Your task to perform on an android device: toggle pop-ups in chrome Image 0: 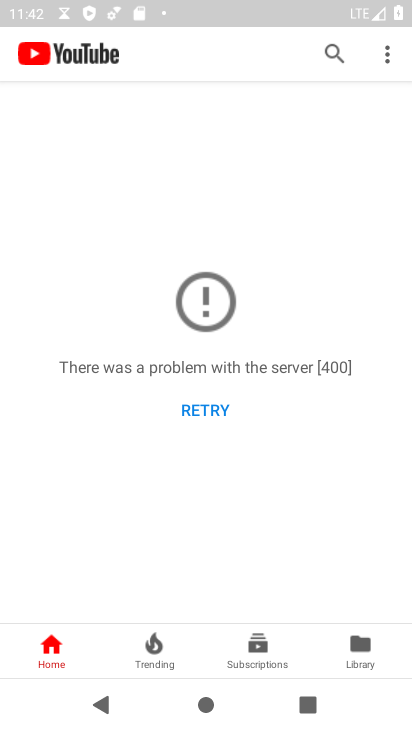
Step 0: press home button
Your task to perform on an android device: toggle pop-ups in chrome Image 1: 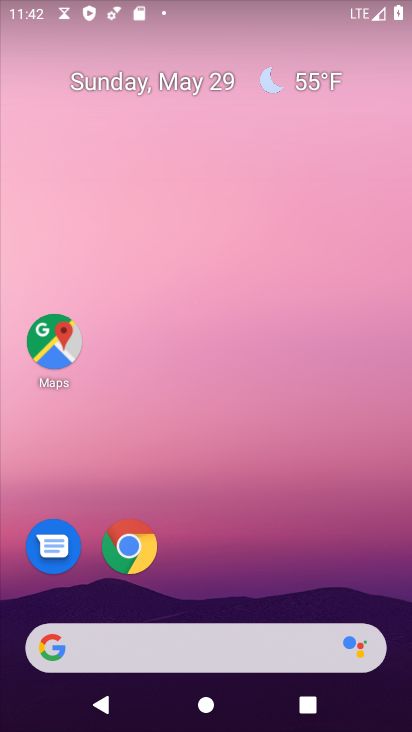
Step 1: drag from (184, 653) to (294, 165)
Your task to perform on an android device: toggle pop-ups in chrome Image 2: 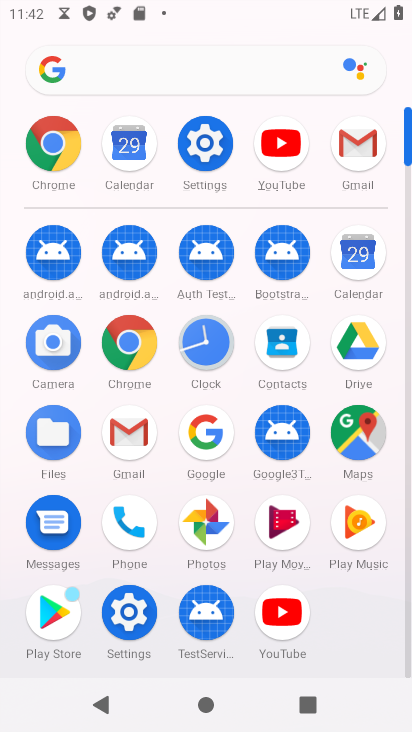
Step 2: click (50, 151)
Your task to perform on an android device: toggle pop-ups in chrome Image 3: 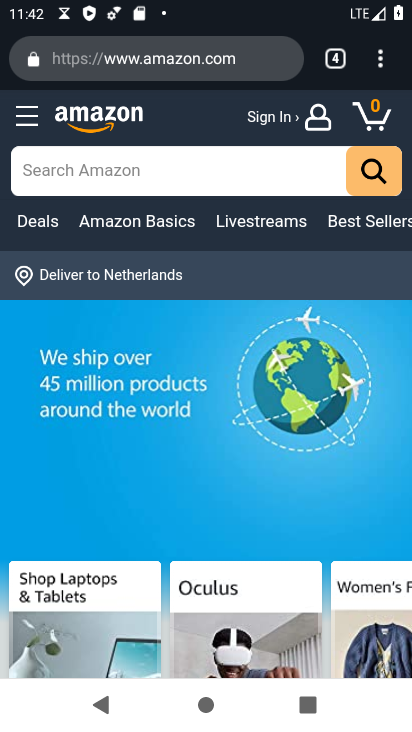
Step 3: drag from (379, 69) to (211, 573)
Your task to perform on an android device: toggle pop-ups in chrome Image 4: 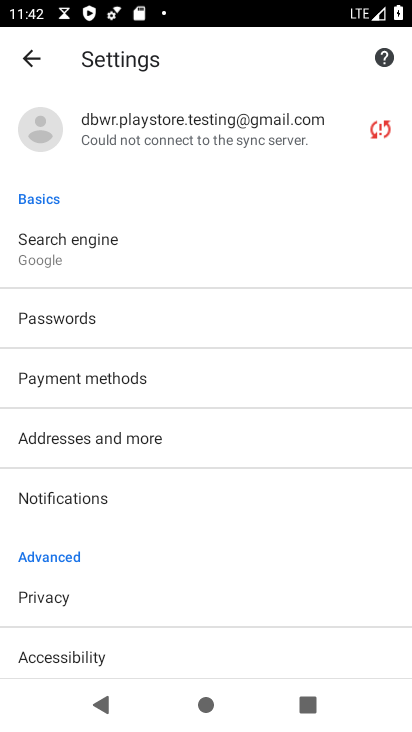
Step 4: drag from (215, 478) to (297, 255)
Your task to perform on an android device: toggle pop-ups in chrome Image 5: 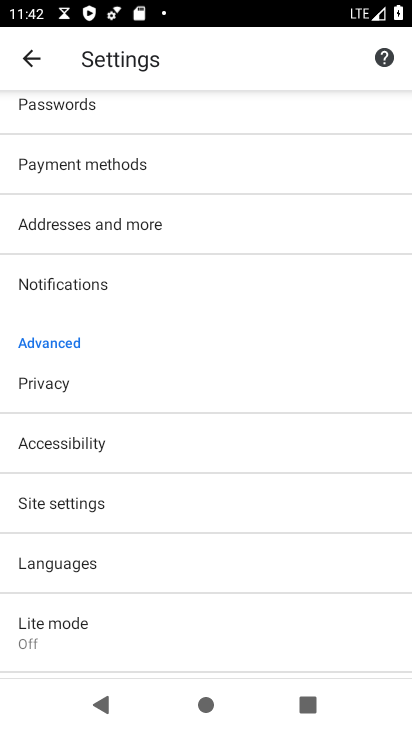
Step 5: click (77, 504)
Your task to perform on an android device: toggle pop-ups in chrome Image 6: 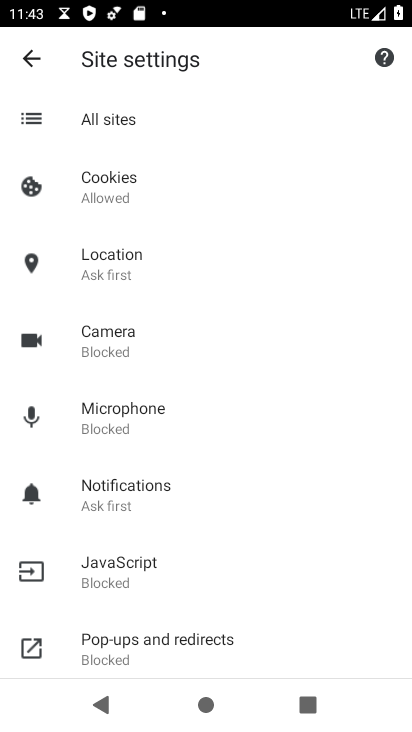
Step 6: drag from (168, 603) to (254, 344)
Your task to perform on an android device: toggle pop-ups in chrome Image 7: 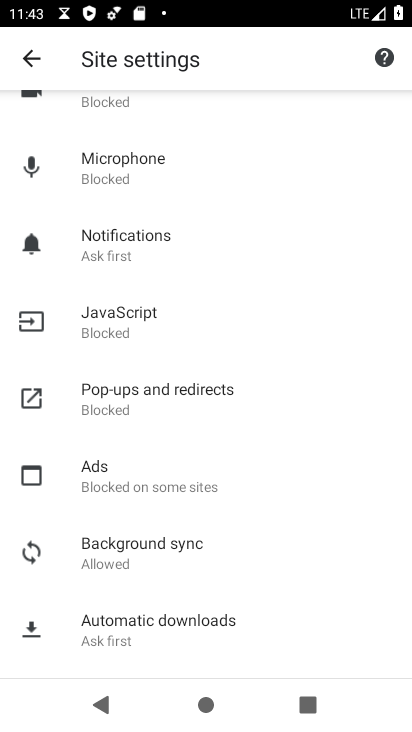
Step 7: click (143, 398)
Your task to perform on an android device: toggle pop-ups in chrome Image 8: 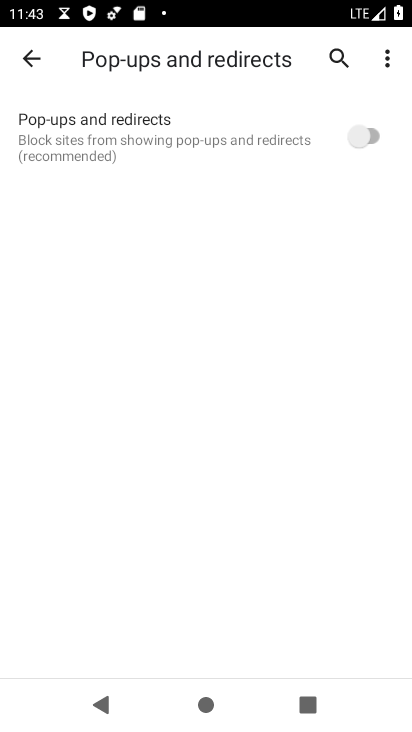
Step 8: click (373, 129)
Your task to perform on an android device: toggle pop-ups in chrome Image 9: 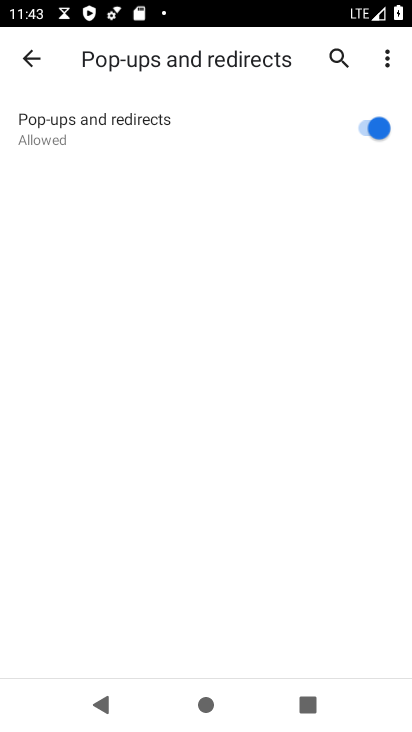
Step 9: task complete